Your task to perform on an android device: Open accessibility settings Image 0: 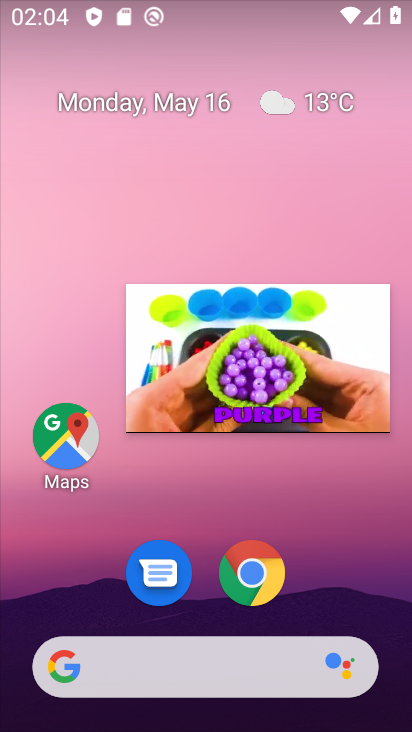
Step 0: drag from (276, 349) to (211, 730)
Your task to perform on an android device: Open accessibility settings Image 1: 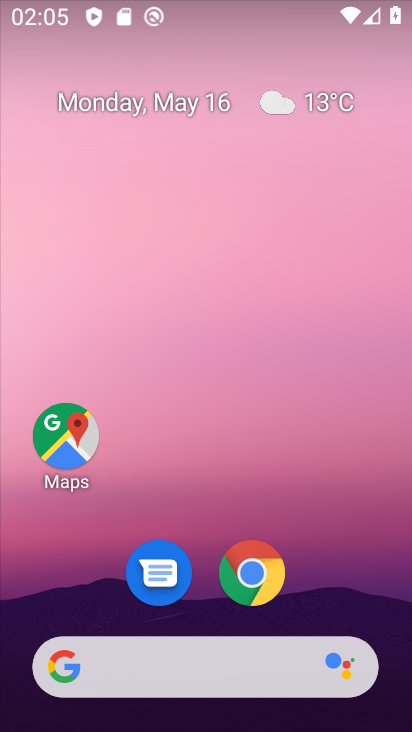
Step 1: drag from (194, 615) to (207, 139)
Your task to perform on an android device: Open accessibility settings Image 2: 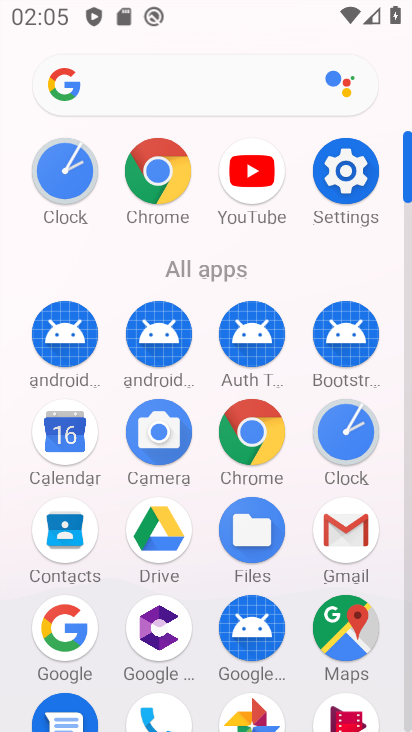
Step 2: click (354, 180)
Your task to perform on an android device: Open accessibility settings Image 3: 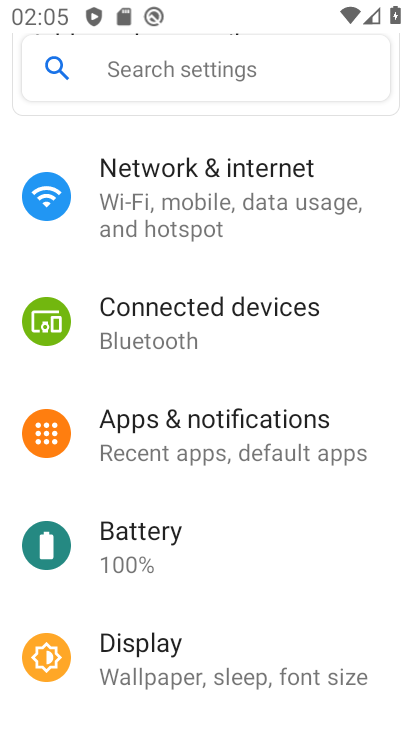
Step 3: drag from (122, 605) to (222, 139)
Your task to perform on an android device: Open accessibility settings Image 4: 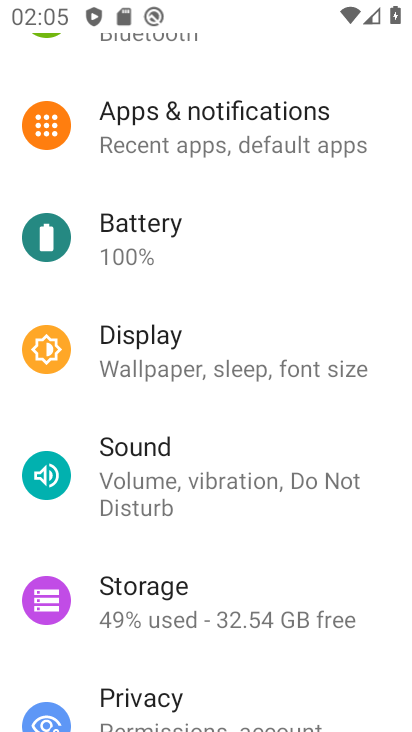
Step 4: drag from (95, 631) to (174, 244)
Your task to perform on an android device: Open accessibility settings Image 5: 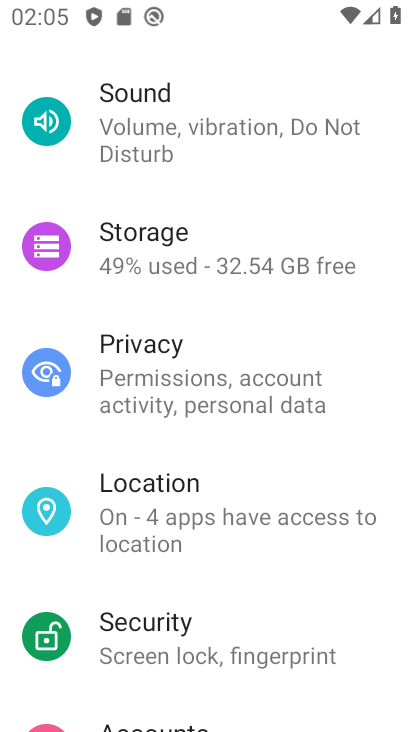
Step 5: drag from (101, 682) to (146, 273)
Your task to perform on an android device: Open accessibility settings Image 6: 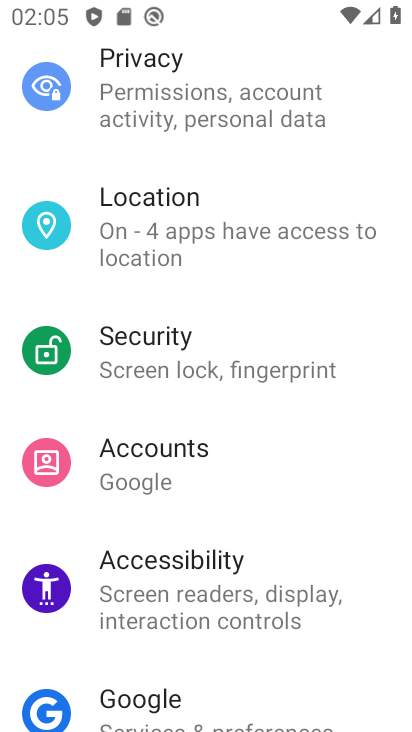
Step 6: click (128, 574)
Your task to perform on an android device: Open accessibility settings Image 7: 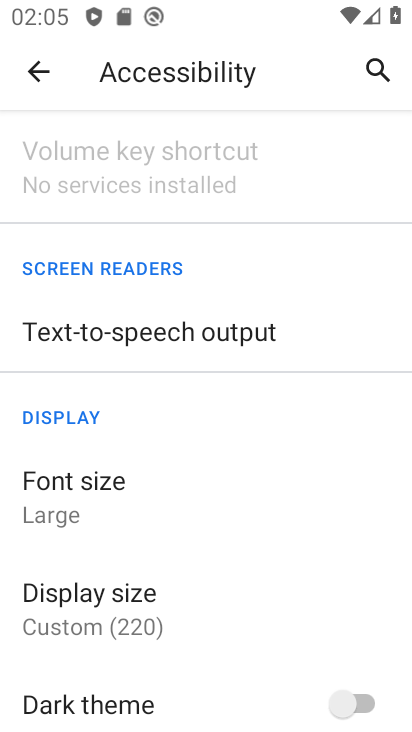
Step 7: task complete